Your task to perform on an android device: turn on bluetooth scan Image 0: 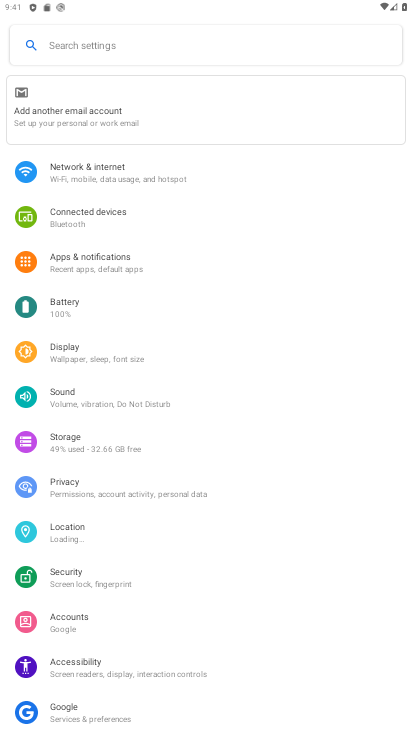
Step 0: press home button
Your task to perform on an android device: turn on bluetooth scan Image 1: 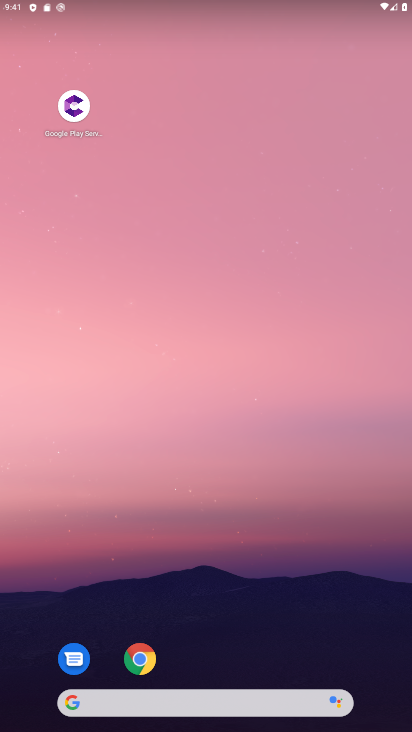
Step 1: drag from (380, 689) to (268, 160)
Your task to perform on an android device: turn on bluetooth scan Image 2: 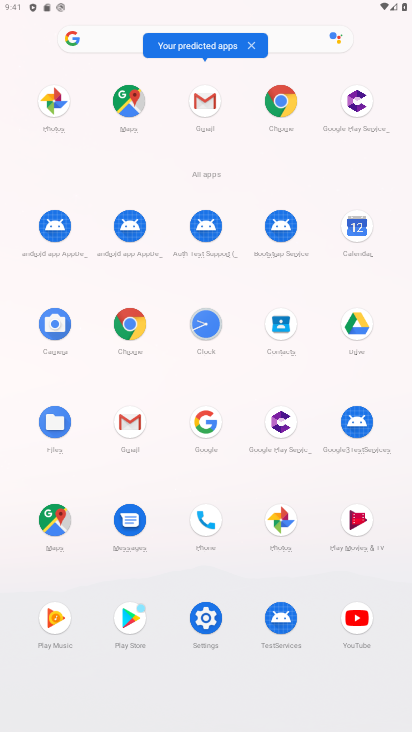
Step 2: click (205, 607)
Your task to perform on an android device: turn on bluetooth scan Image 3: 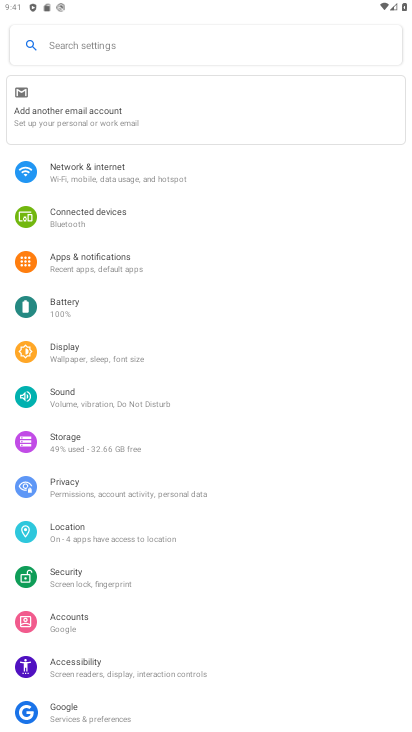
Step 3: click (43, 523)
Your task to perform on an android device: turn on bluetooth scan Image 4: 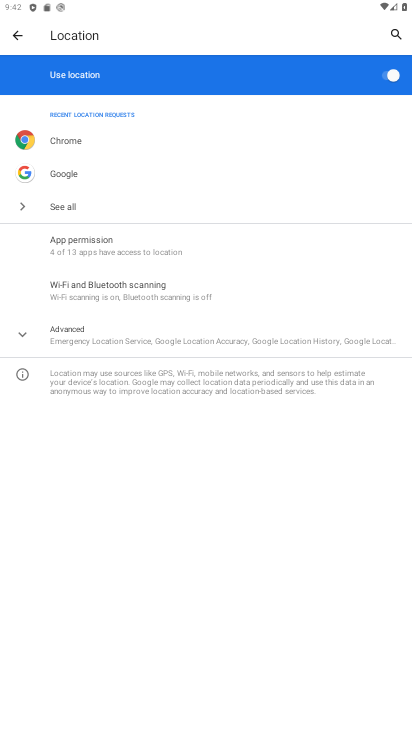
Step 4: click (66, 288)
Your task to perform on an android device: turn on bluetooth scan Image 5: 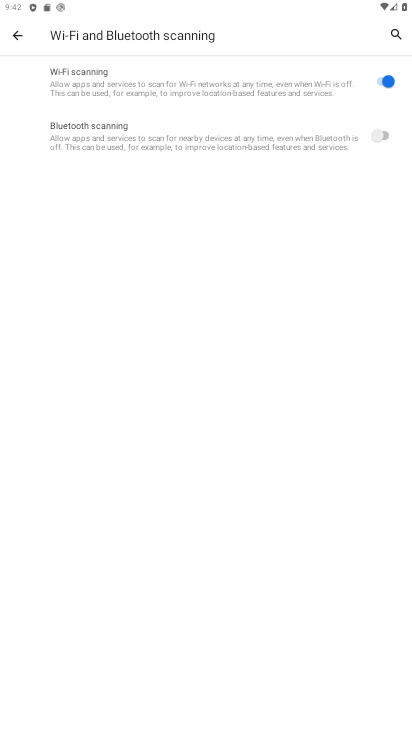
Step 5: click (387, 128)
Your task to perform on an android device: turn on bluetooth scan Image 6: 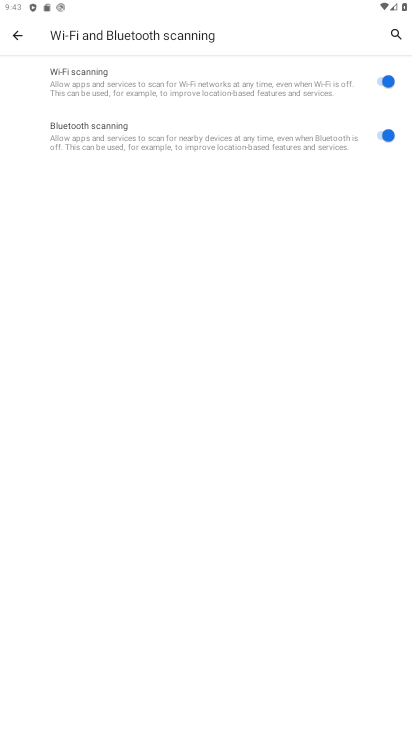
Step 6: task complete